Your task to perform on an android device: open app "Pinterest" Image 0: 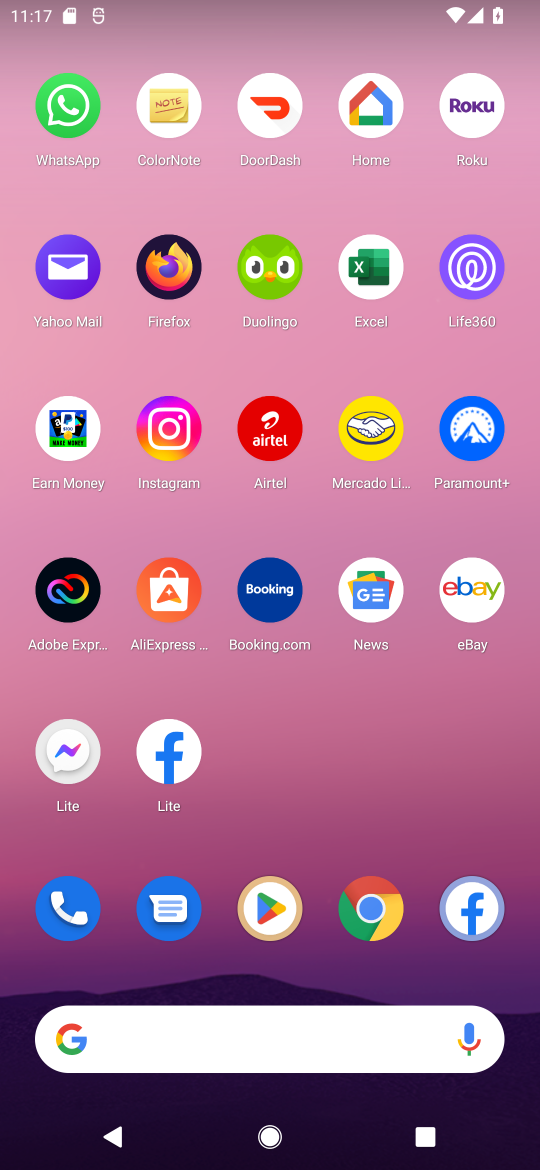
Step 0: click (270, 909)
Your task to perform on an android device: open app "Pinterest" Image 1: 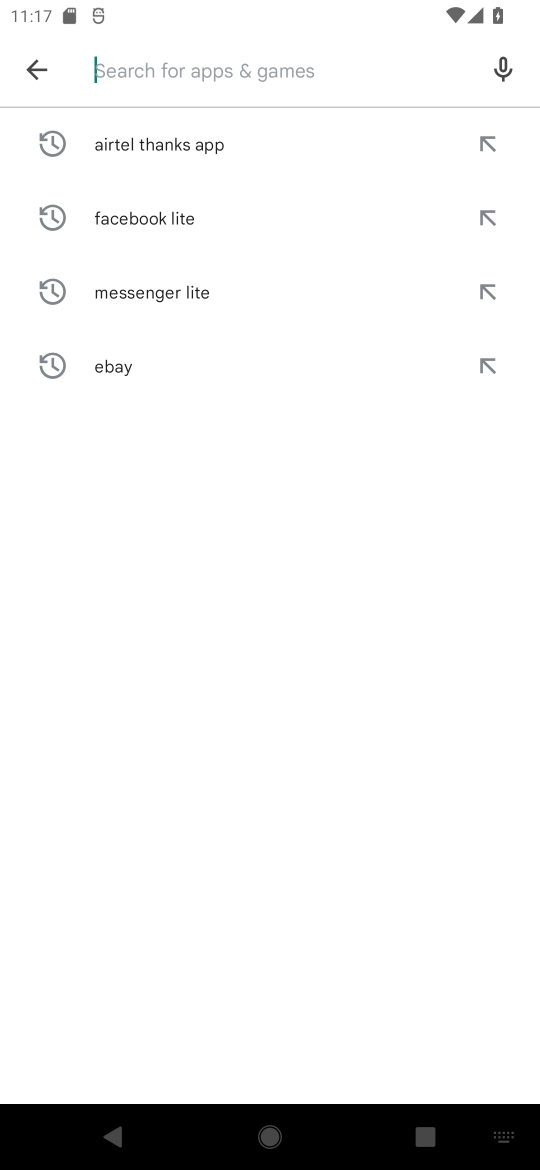
Step 1: type "Pinterest"
Your task to perform on an android device: open app "Pinterest" Image 2: 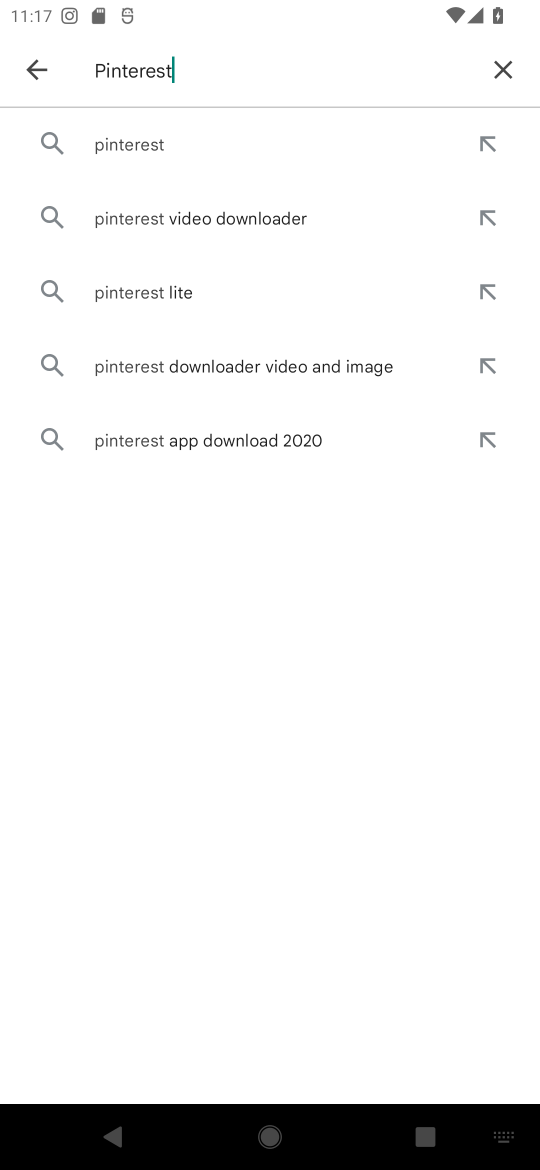
Step 2: click (105, 167)
Your task to perform on an android device: open app "Pinterest" Image 3: 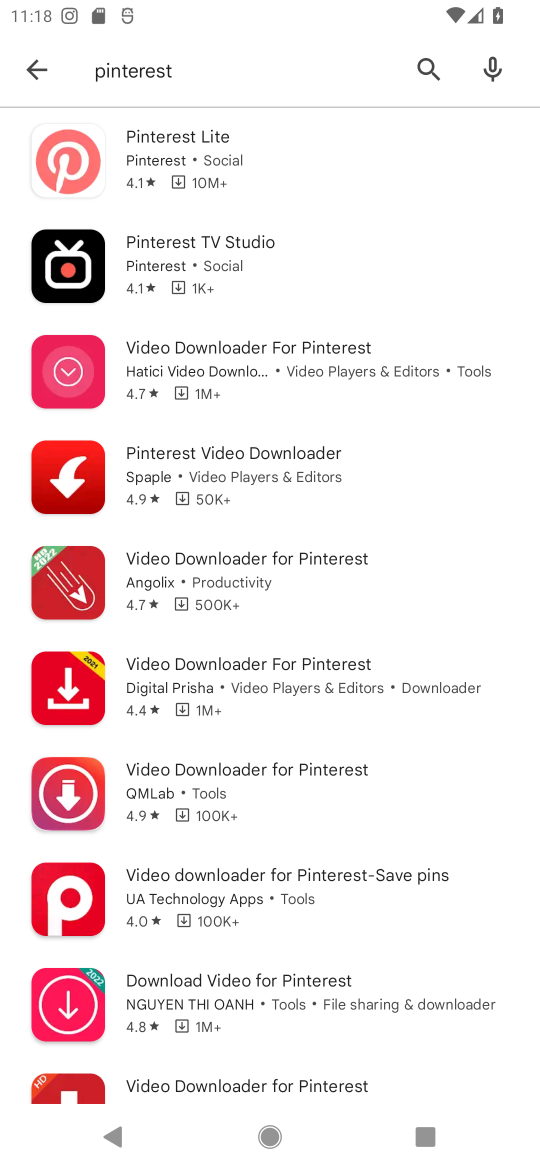
Step 3: click (105, 167)
Your task to perform on an android device: open app "Pinterest" Image 4: 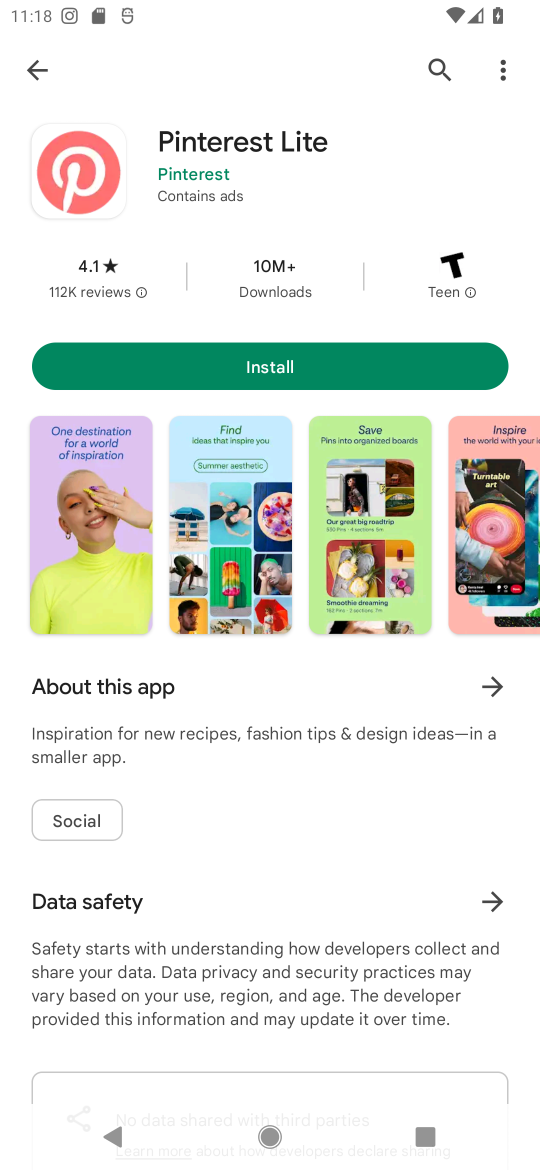
Step 4: task complete